Your task to perform on an android device: manage bookmarks in the chrome app Image 0: 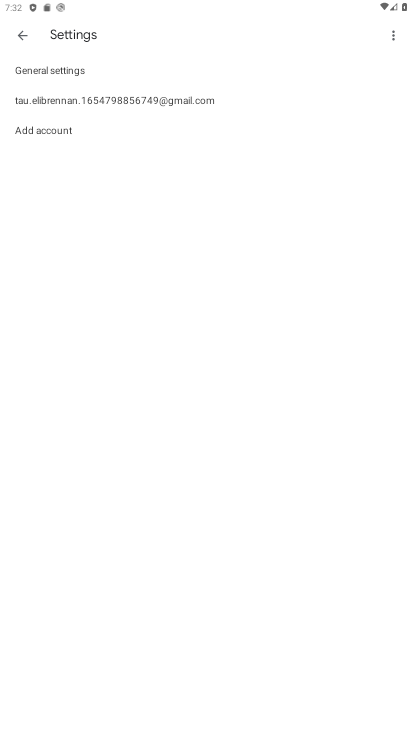
Step 0: press home button
Your task to perform on an android device: manage bookmarks in the chrome app Image 1: 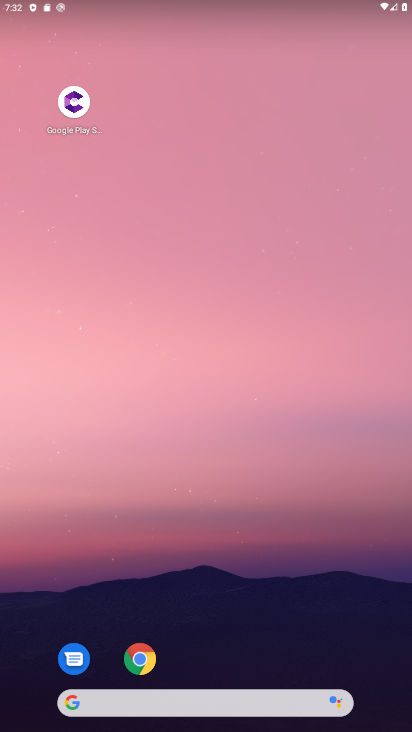
Step 1: drag from (346, 564) to (148, 169)
Your task to perform on an android device: manage bookmarks in the chrome app Image 2: 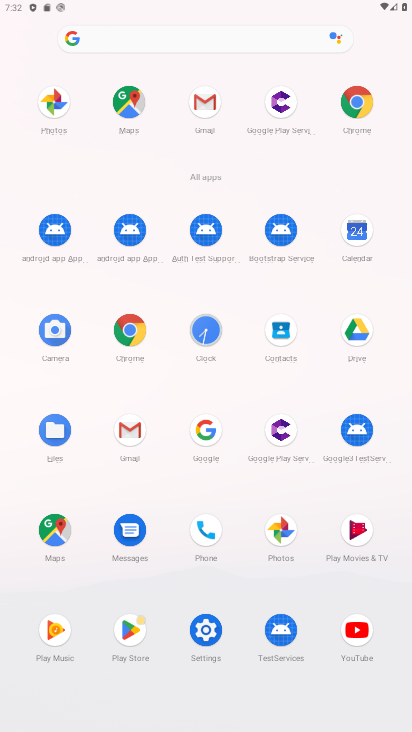
Step 2: click (351, 111)
Your task to perform on an android device: manage bookmarks in the chrome app Image 3: 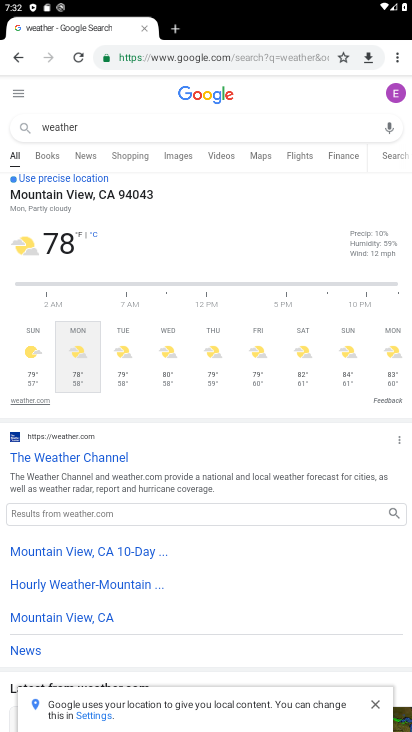
Step 3: drag from (396, 56) to (266, 126)
Your task to perform on an android device: manage bookmarks in the chrome app Image 4: 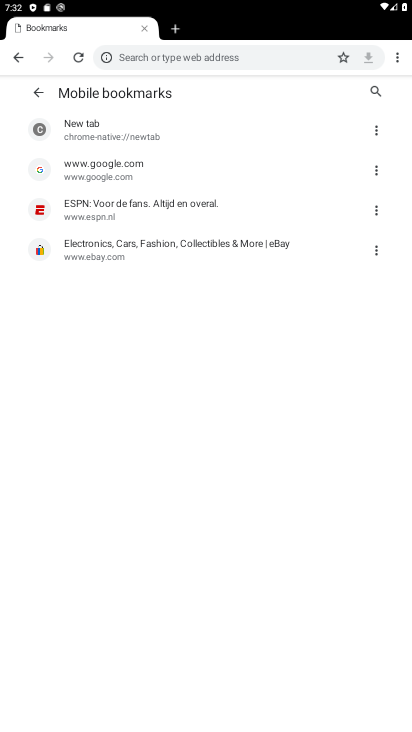
Step 4: click (372, 243)
Your task to perform on an android device: manage bookmarks in the chrome app Image 5: 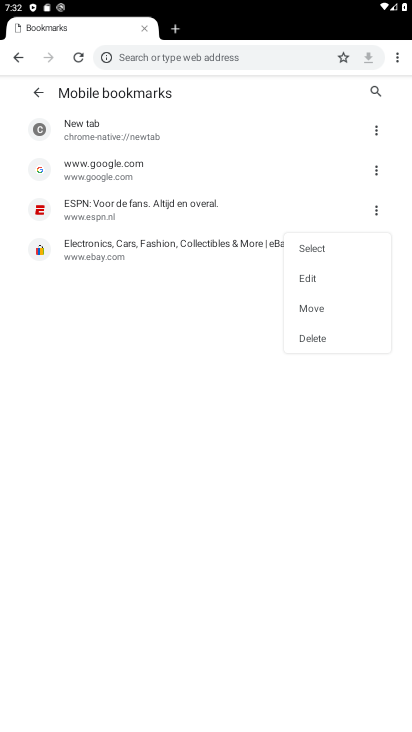
Step 5: click (299, 272)
Your task to perform on an android device: manage bookmarks in the chrome app Image 6: 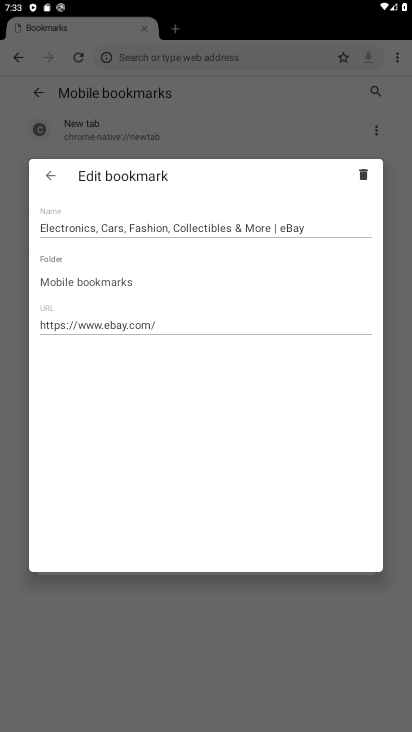
Step 6: click (314, 227)
Your task to perform on an android device: manage bookmarks in the chrome app Image 7: 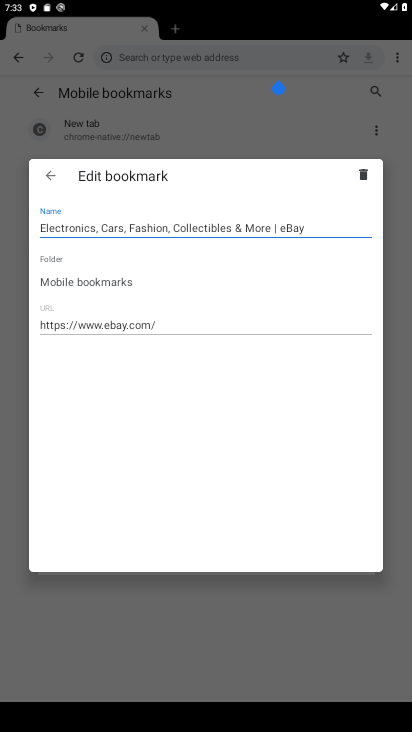
Step 7: click (176, 640)
Your task to perform on an android device: manage bookmarks in the chrome app Image 8: 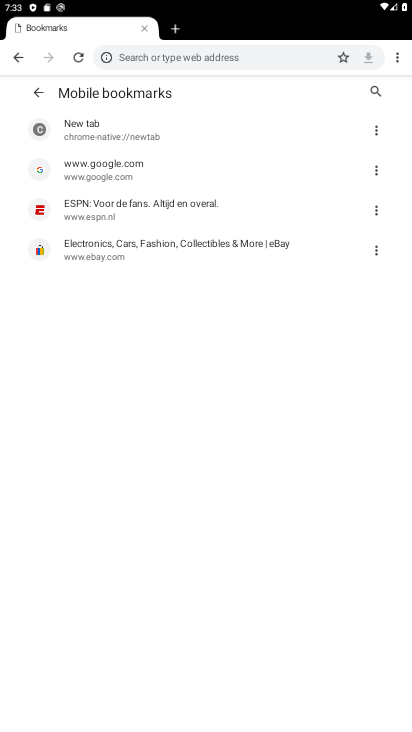
Step 8: task complete